Your task to perform on an android device: turn off translation in the chrome app Image 0: 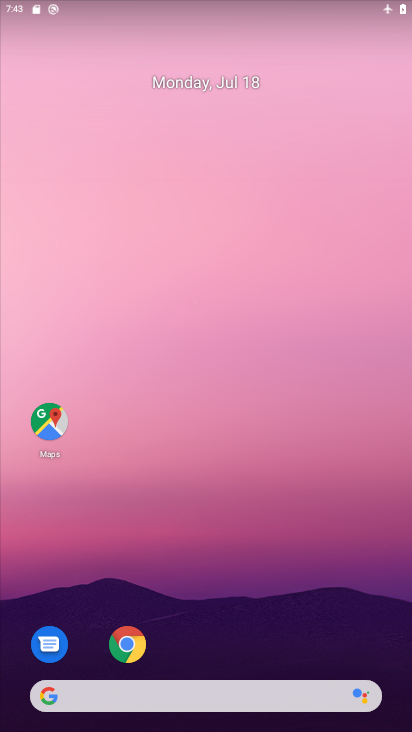
Step 0: drag from (346, 631) to (410, 148)
Your task to perform on an android device: turn off translation in the chrome app Image 1: 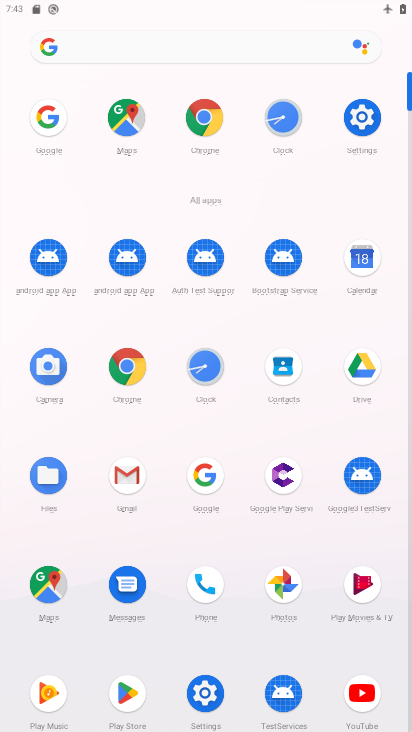
Step 1: click (205, 120)
Your task to perform on an android device: turn off translation in the chrome app Image 2: 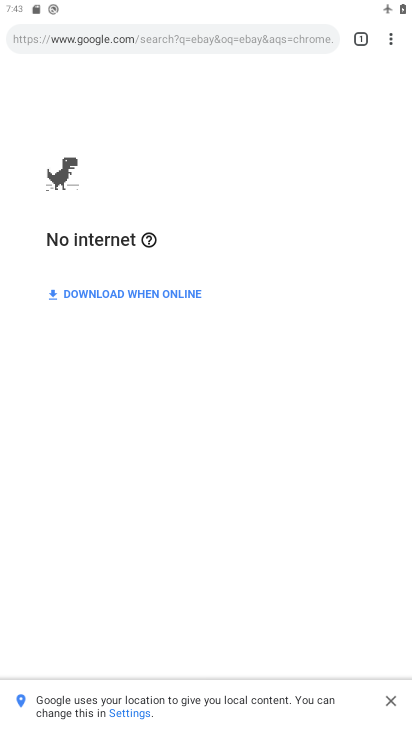
Step 2: click (391, 41)
Your task to perform on an android device: turn off translation in the chrome app Image 3: 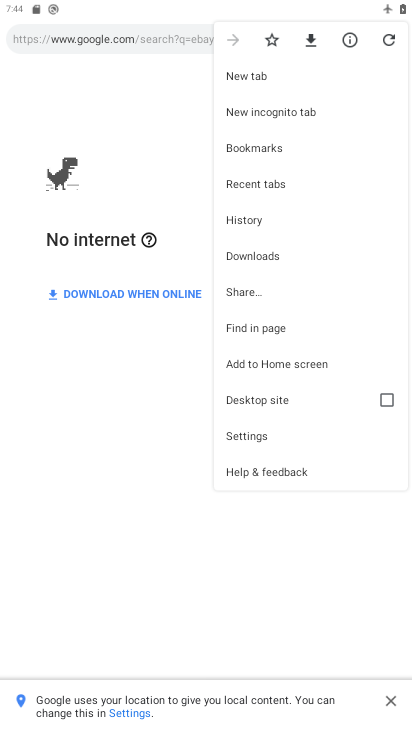
Step 3: click (269, 436)
Your task to perform on an android device: turn off translation in the chrome app Image 4: 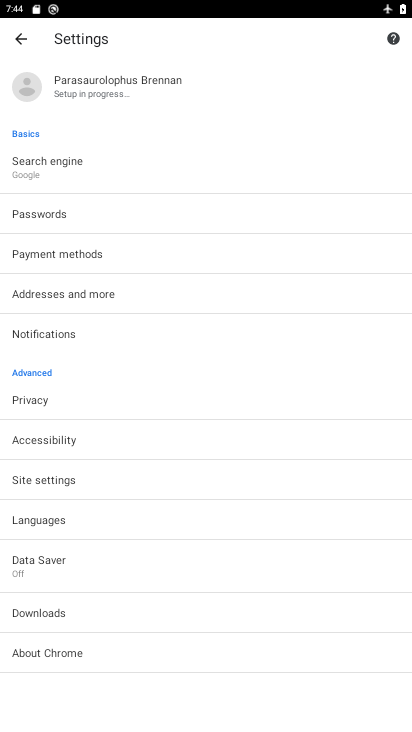
Step 4: click (197, 517)
Your task to perform on an android device: turn off translation in the chrome app Image 5: 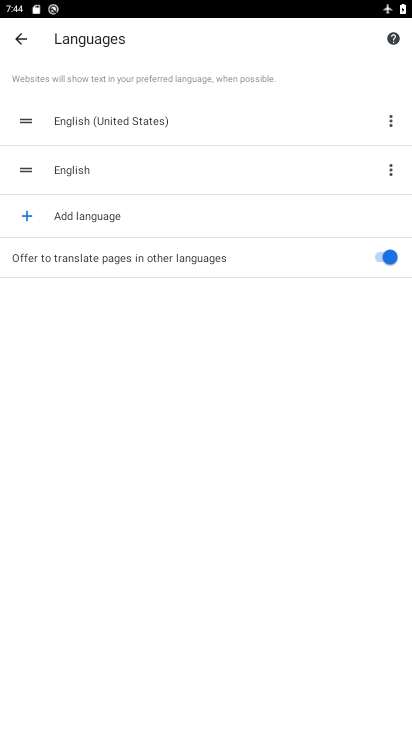
Step 5: click (381, 254)
Your task to perform on an android device: turn off translation in the chrome app Image 6: 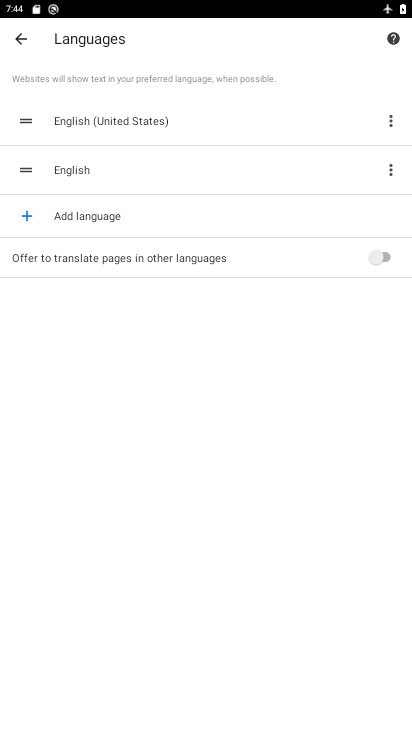
Step 6: task complete